Your task to perform on an android device: see tabs open on other devices in the chrome app Image 0: 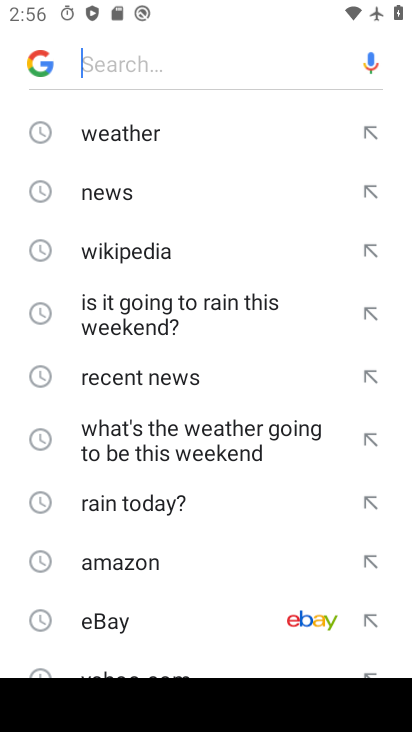
Step 0: press back button
Your task to perform on an android device: see tabs open on other devices in the chrome app Image 1: 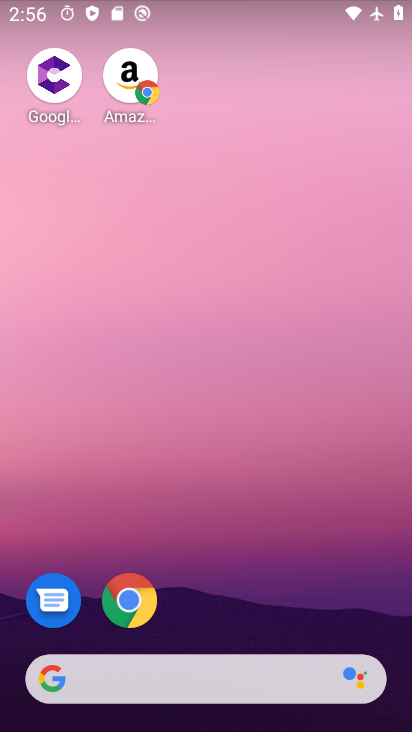
Step 1: drag from (260, 555) to (244, 26)
Your task to perform on an android device: see tabs open on other devices in the chrome app Image 2: 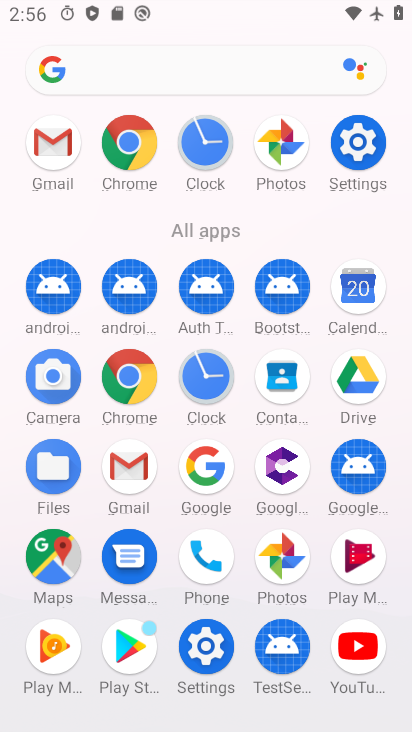
Step 2: drag from (10, 556) to (0, 240)
Your task to perform on an android device: see tabs open on other devices in the chrome app Image 3: 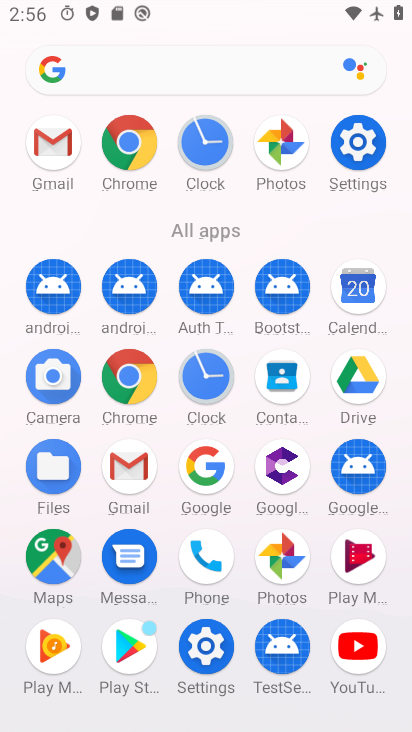
Step 3: click (121, 375)
Your task to perform on an android device: see tabs open on other devices in the chrome app Image 4: 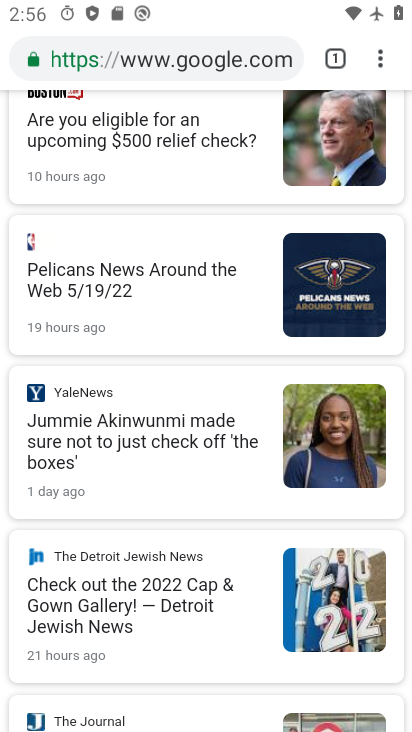
Step 4: task complete